Your task to perform on an android device: Show me the alarms in the clock app Image 0: 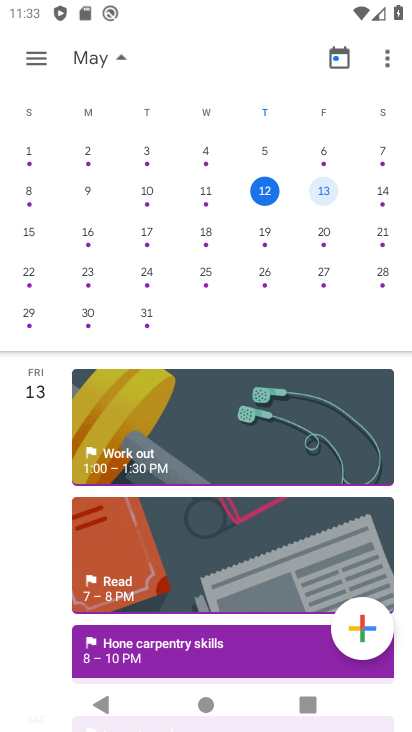
Step 0: press home button
Your task to perform on an android device: Show me the alarms in the clock app Image 1: 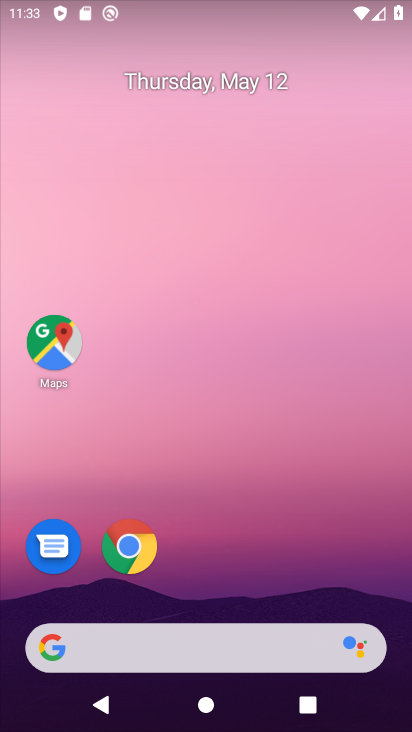
Step 1: drag from (235, 723) to (221, 271)
Your task to perform on an android device: Show me the alarms in the clock app Image 2: 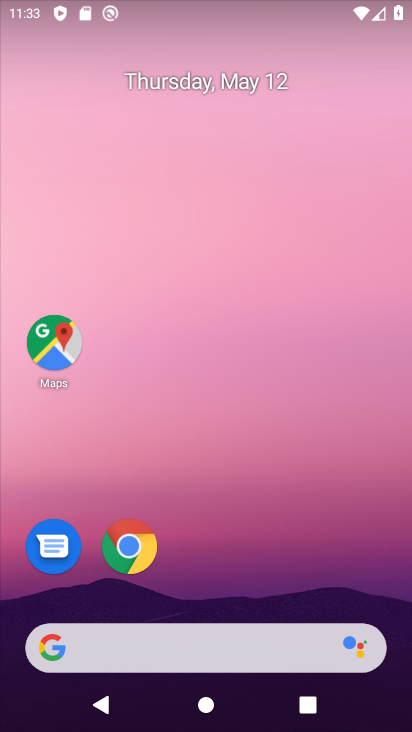
Step 2: drag from (217, 725) to (218, 144)
Your task to perform on an android device: Show me the alarms in the clock app Image 3: 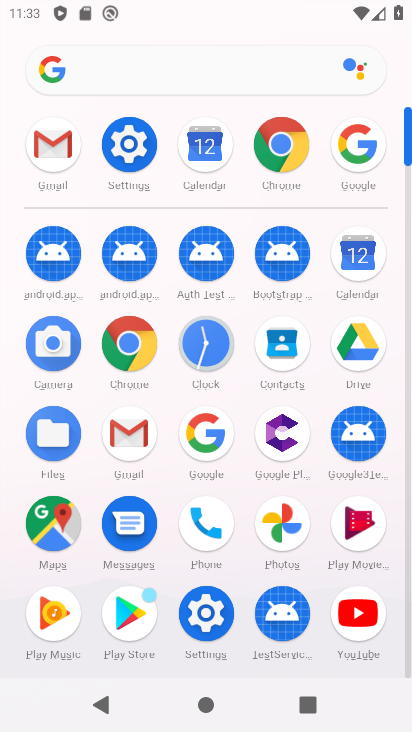
Step 3: click (203, 352)
Your task to perform on an android device: Show me the alarms in the clock app Image 4: 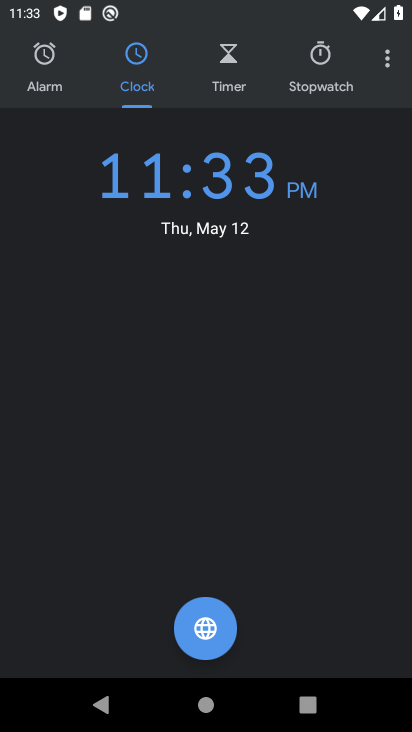
Step 4: click (41, 87)
Your task to perform on an android device: Show me the alarms in the clock app Image 5: 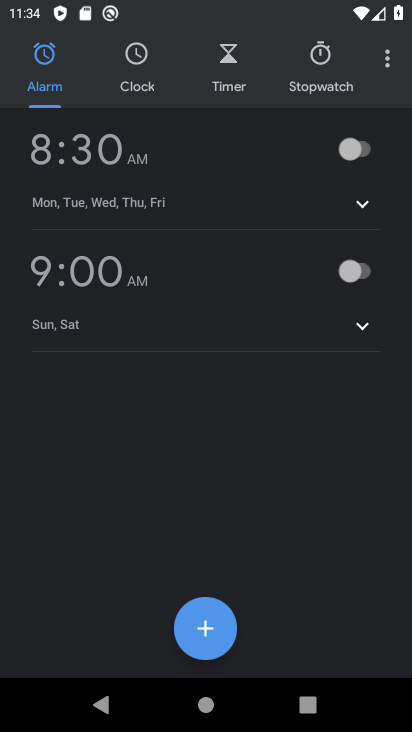
Step 5: task complete